Your task to perform on an android device: turn off translation in the chrome app Image 0: 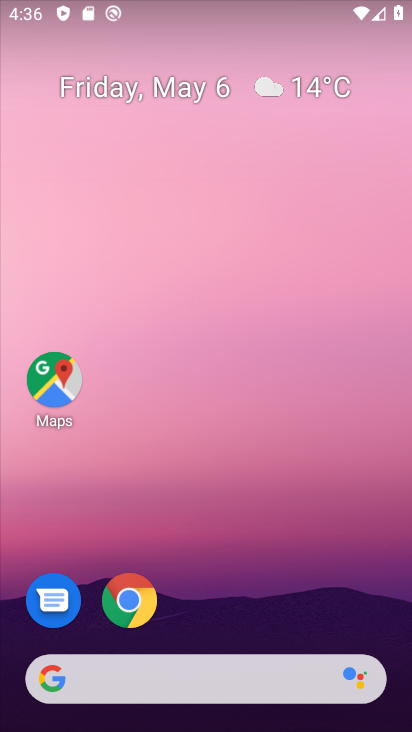
Step 0: click (133, 618)
Your task to perform on an android device: turn off translation in the chrome app Image 1: 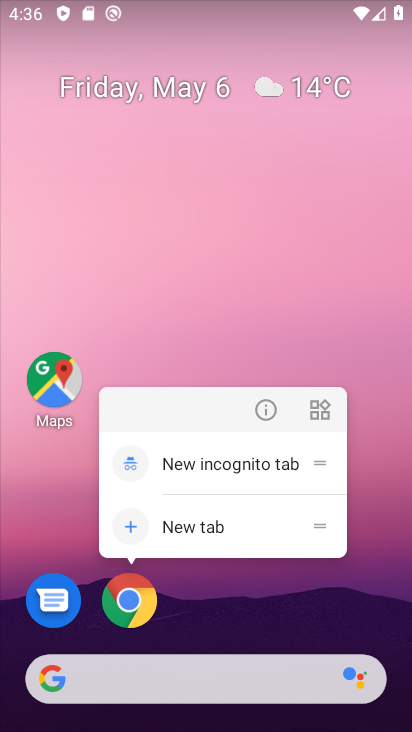
Step 1: click (144, 614)
Your task to perform on an android device: turn off translation in the chrome app Image 2: 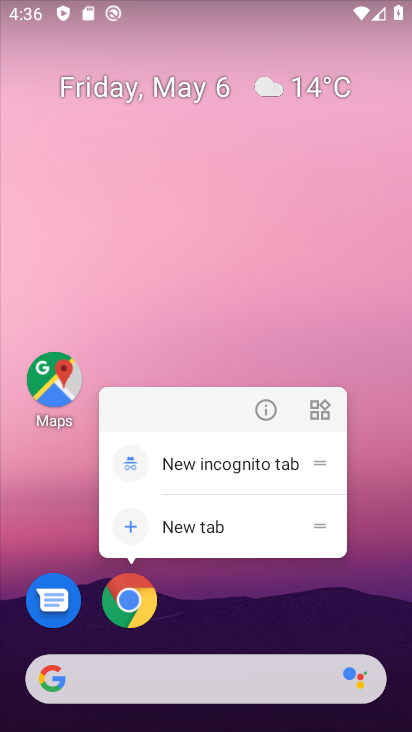
Step 2: click (133, 617)
Your task to perform on an android device: turn off translation in the chrome app Image 3: 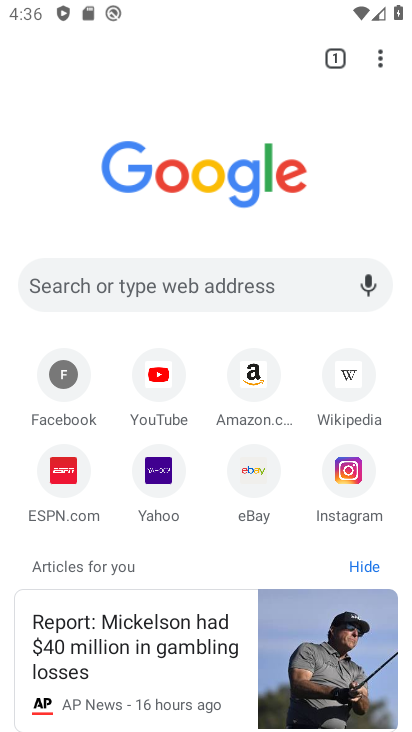
Step 3: drag from (379, 64) to (262, 499)
Your task to perform on an android device: turn off translation in the chrome app Image 4: 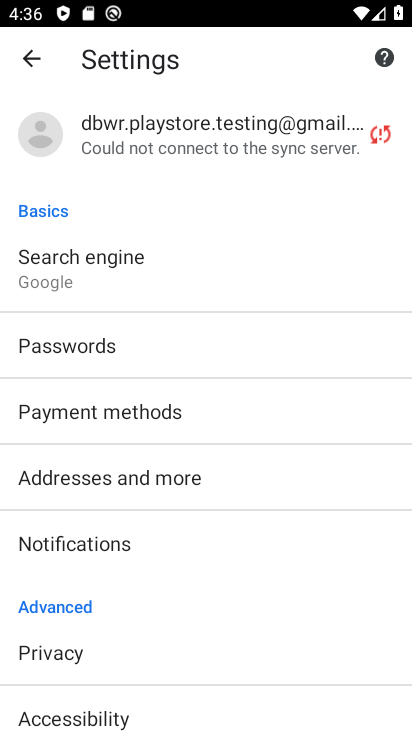
Step 4: drag from (187, 647) to (187, 176)
Your task to perform on an android device: turn off translation in the chrome app Image 5: 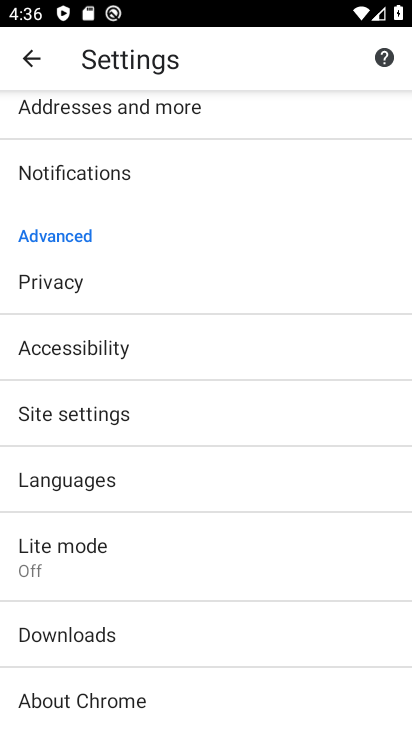
Step 5: drag from (129, 639) to (146, 336)
Your task to perform on an android device: turn off translation in the chrome app Image 6: 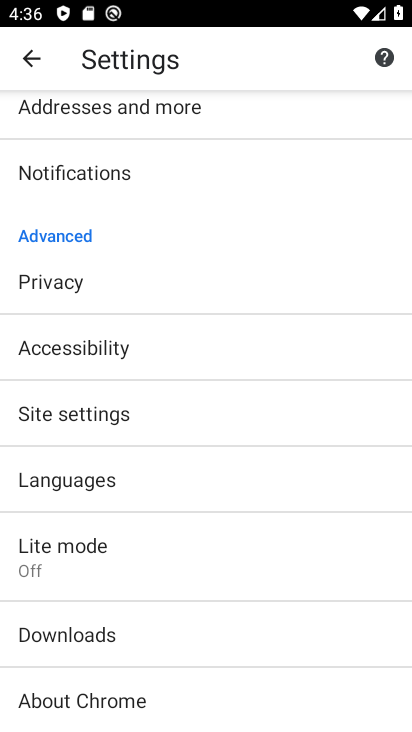
Step 6: click (173, 491)
Your task to perform on an android device: turn off translation in the chrome app Image 7: 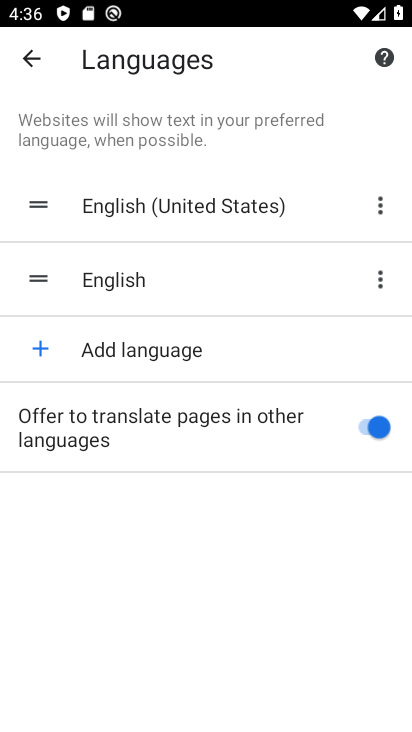
Step 7: click (383, 425)
Your task to perform on an android device: turn off translation in the chrome app Image 8: 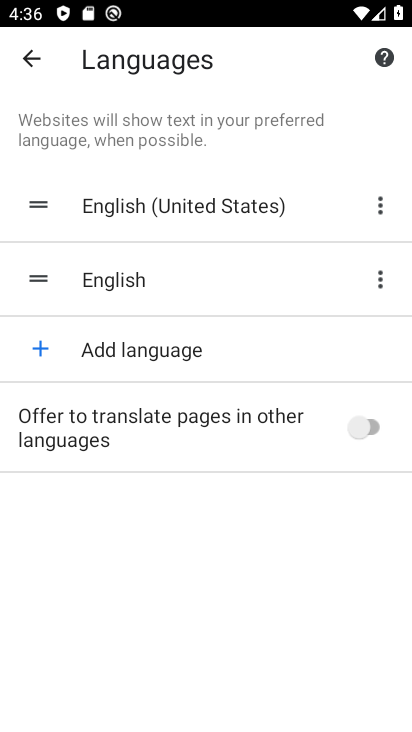
Step 8: task complete